Your task to perform on an android device: turn off location Image 0: 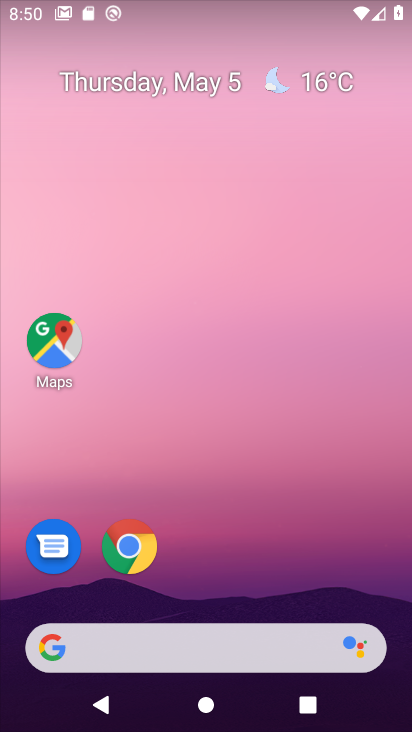
Step 0: drag from (247, 567) to (235, 2)
Your task to perform on an android device: turn off location Image 1: 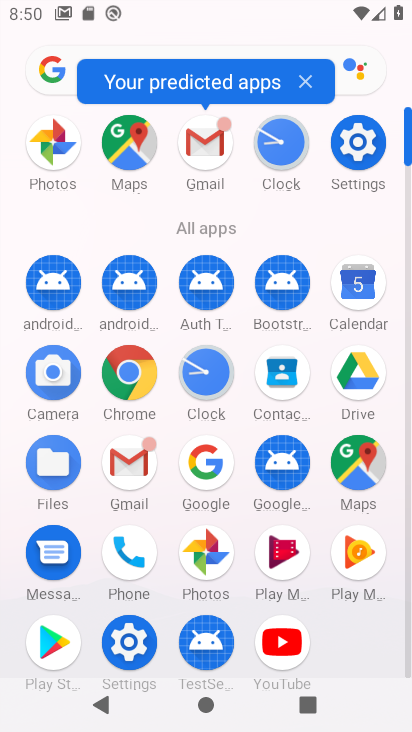
Step 1: click (356, 163)
Your task to perform on an android device: turn off location Image 2: 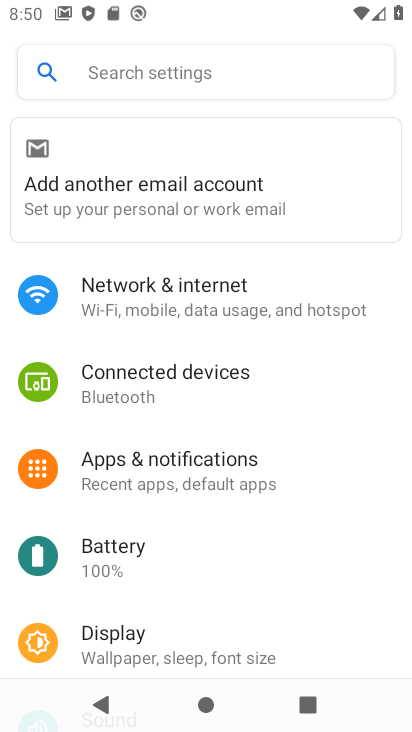
Step 2: drag from (258, 515) to (196, 189)
Your task to perform on an android device: turn off location Image 3: 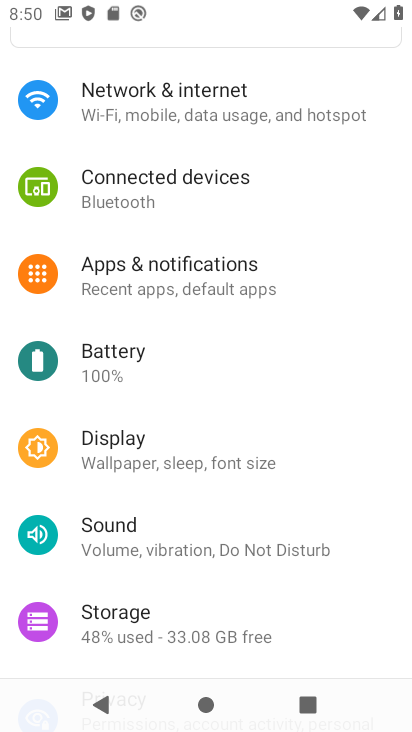
Step 3: drag from (168, 601) to (134, 226)
Your task to perform on an android device: turn off location Image 4: 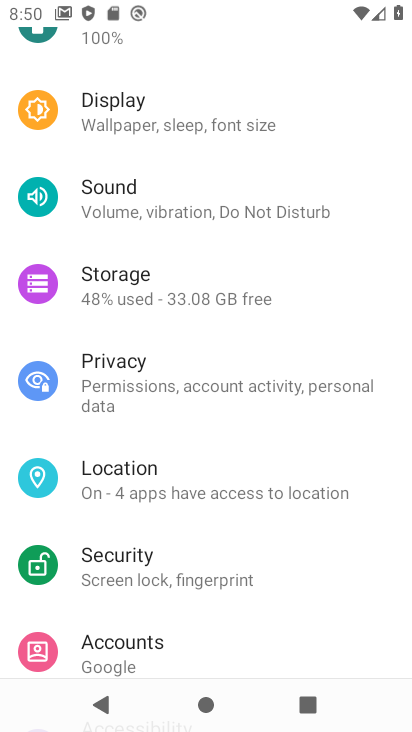
Step 4: click (155, 497)
Your task to perform on an android device: turn off location Image 5: 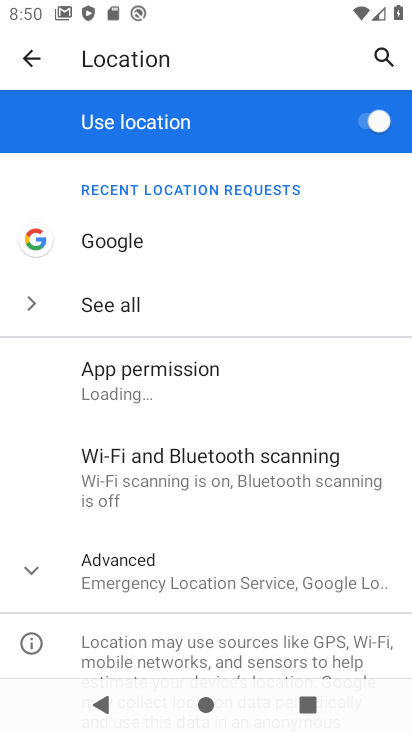
Step 5: click (361, 126)
Your task to perform on an android device: turn off location Image 6: 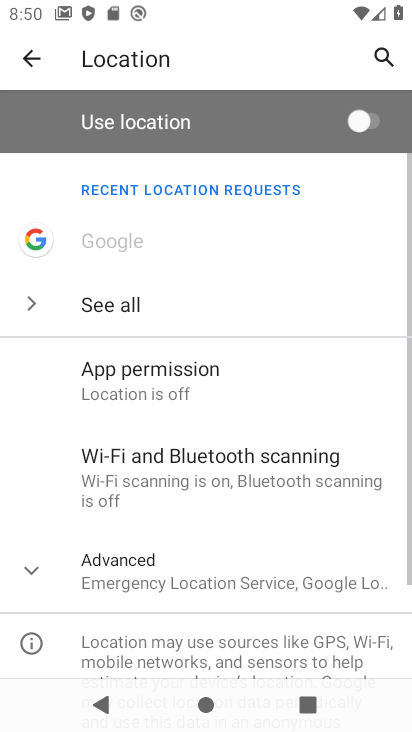
Step 6: task complete